Your task to perform on an android device: change the clock display to analog Image 0: 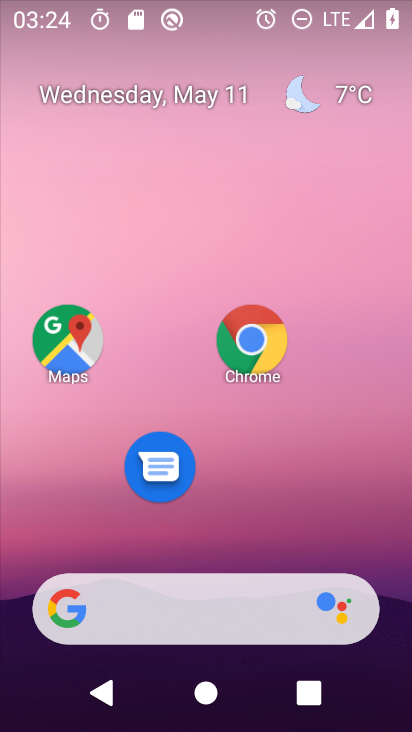
Step 0: drag from (234, 615) to (312, 189)
Your task to perform on an android device: change the clock display to analog Image 1: 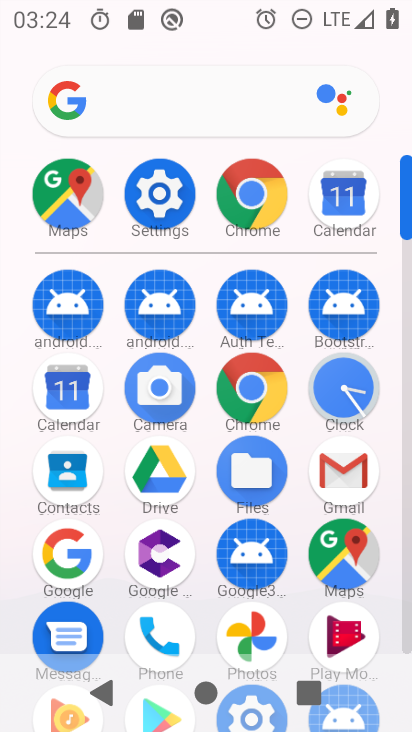
Step 1: click (348, 405)
Your task to perform on an android device: change the clock display to analog Image 2: 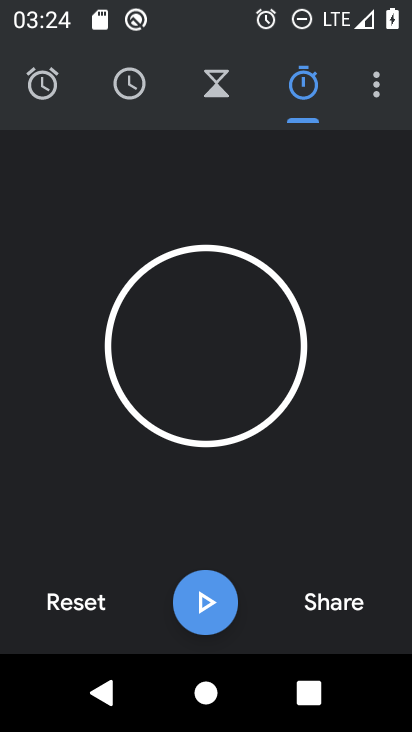
Step 2: click (372, 94)
Your task to perform on an android device: change the clock display to analog Image 3: 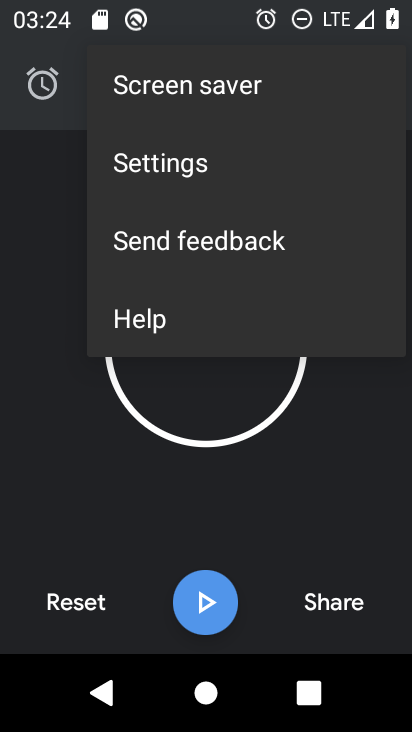
Step 3: click (196, 164)
Your task to perform on an android device: change the clock display to analog Image 4: 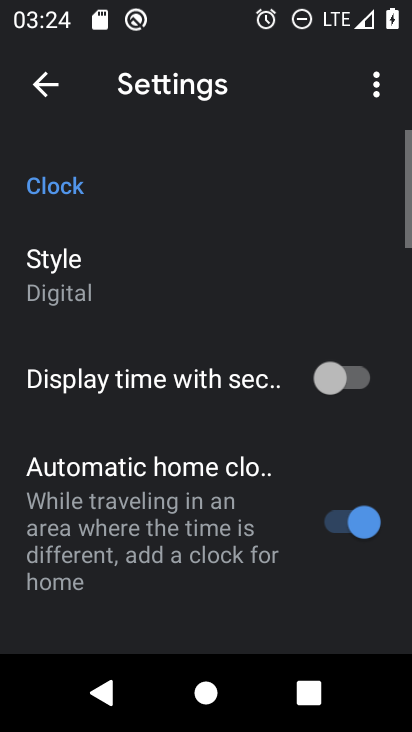
Step 4: click (68, 287)
Your task to perform on an android device: change the clock display to analog Image 5: 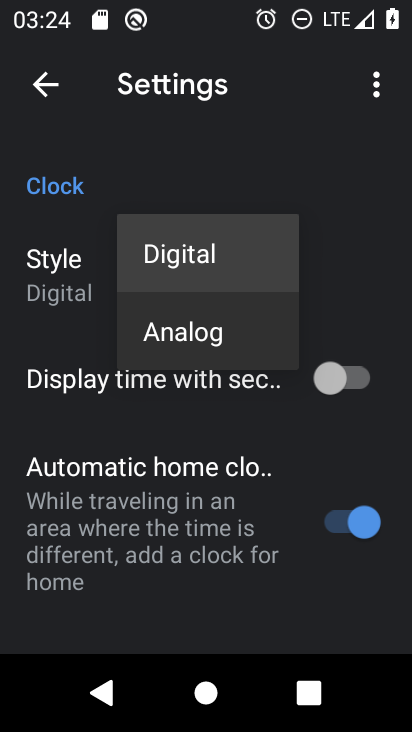
Step 5: click (180, 344)
Your task to perform on an android device: change the clock display to analog Image 6: 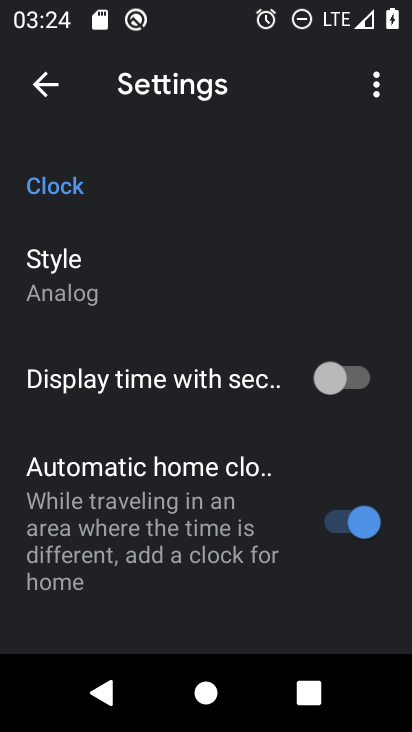
Step 6: task complete